Your task to perform on an android device: turn off location history Image 0: 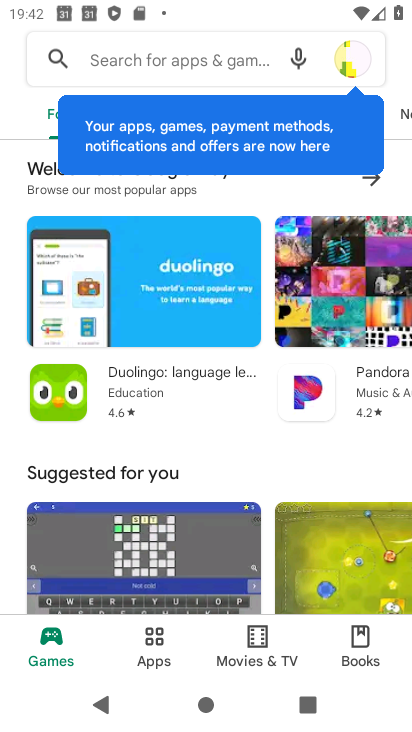
Step 0: press home button
Your task to perform on an android device: turn off location history Image 1: 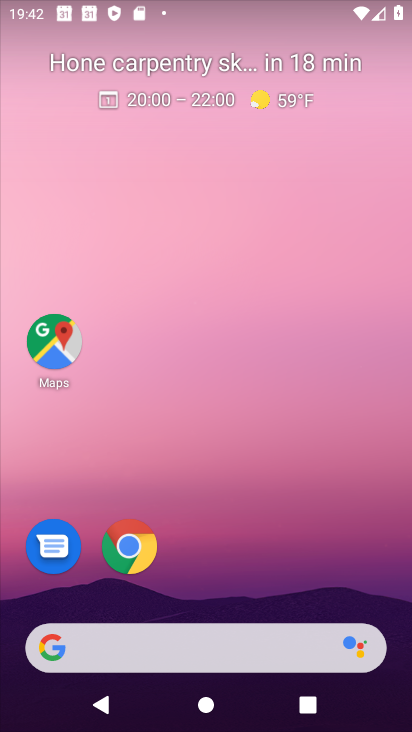
Step 1: drag from (336, 560) to (273, 278)
Your task to perform on an android device: turn off location history Image 2: 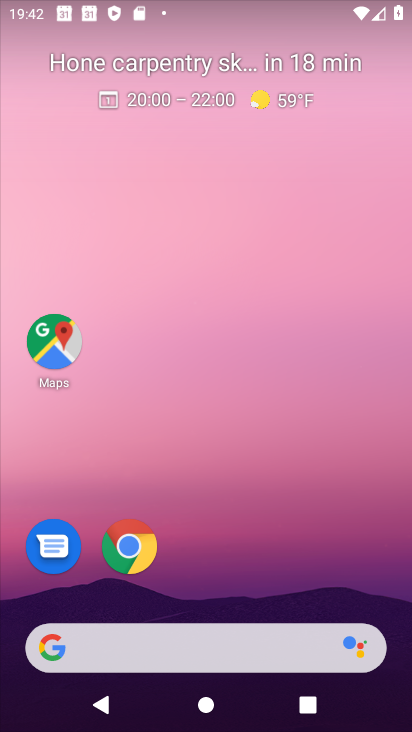
Step 2: drag from (320, 565) to (283, 200)
Your task to perform on an android device: turn off location history Image 3: 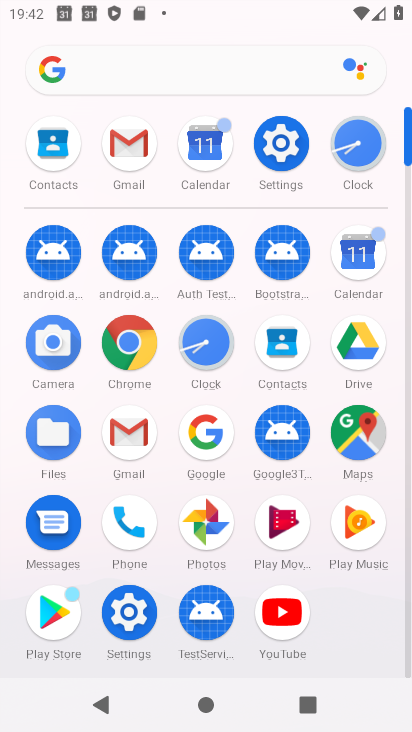
Step 3: click (129, 624)
Your task to perform on an android device: turn off location history Image 4: 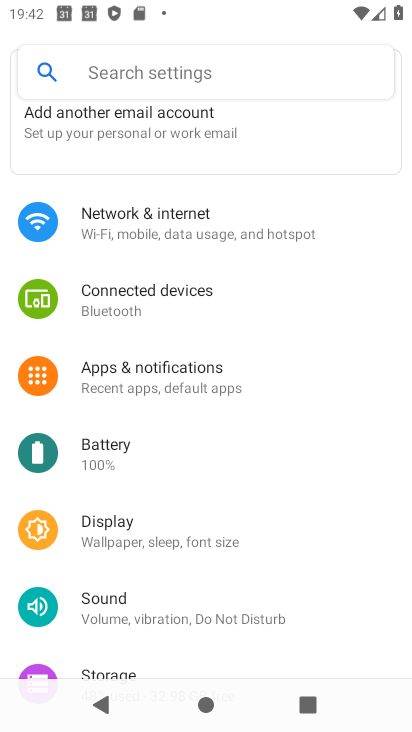
Step 4: drag from (207, 589) to (188, 317)
Your task to perform on an android device: turn off location history Image 5: 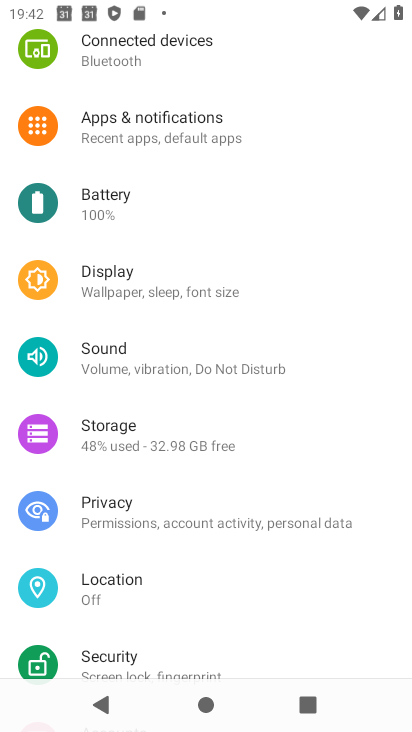
Step 5: click (99, 594)
Your task to perform on an android device: turn off location history Image 6: 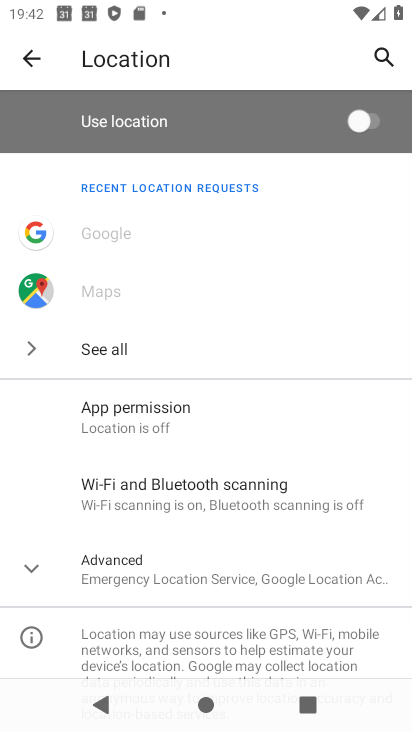
Step 6: click (219, 584)
Your task to perform on an android device: turn off location history Image 7: 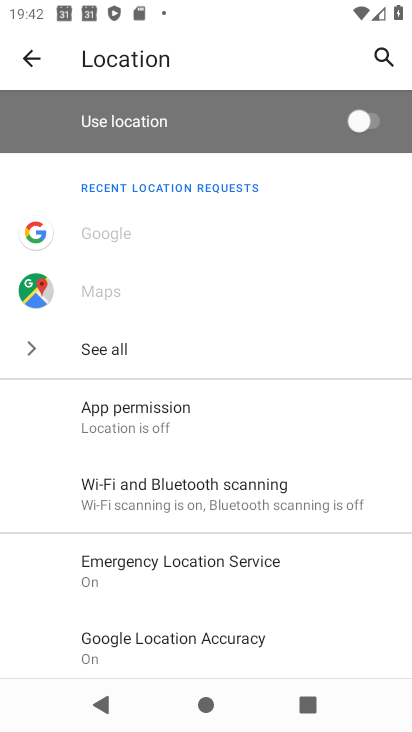
Step 7: drag from (239, 607) to (229, 449)
Your task to perform on an android device: turn off location history Image 8: 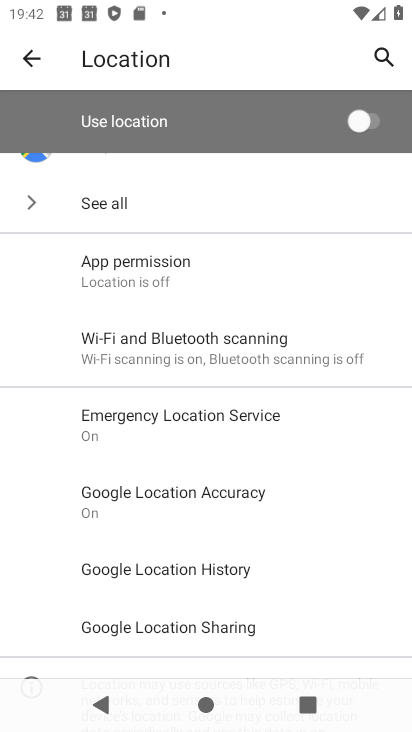
Step 8: click (242, 568)
Your task to perform on an android device: turn off location history Image 9: 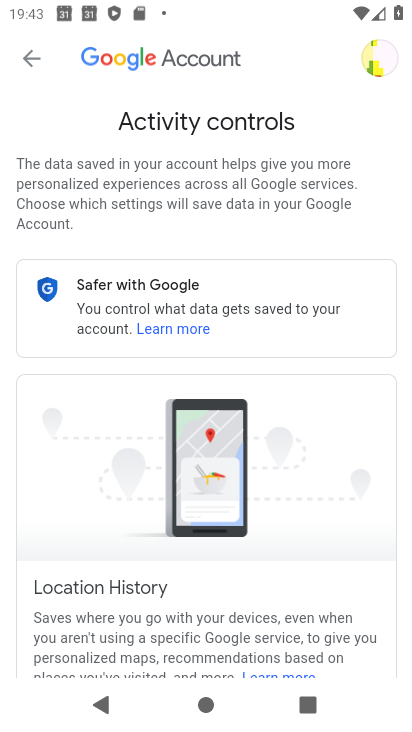
Step 9: drag from (299, 580) to (289, 335)
Your task to perform on an android device: turn off location history Image 10: 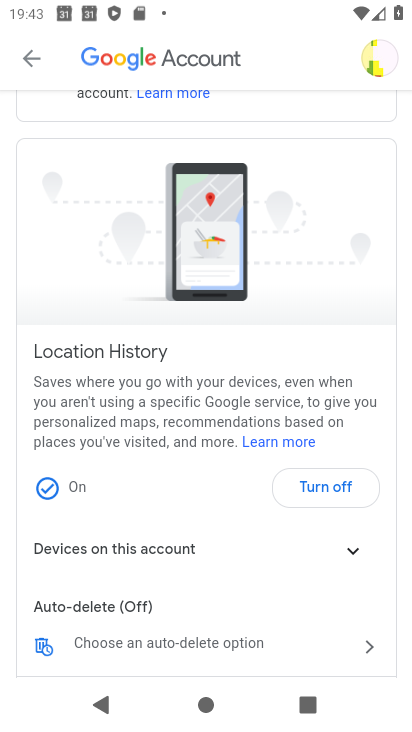
Step 10: click (316, 489)
Your task to perform on an android device: turn off location history Image 11: 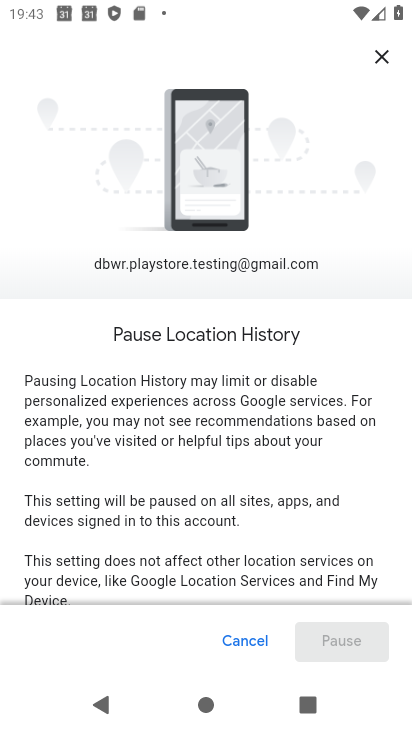
Step 11: drag from (344, 514) to (307, 207)
Your task to perform on an android device: turn off location history Image 12: 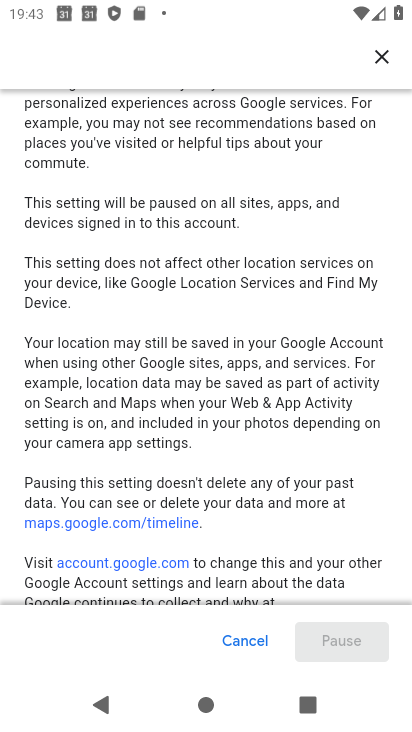
Step 12: drag from (313, 518) to (292, 119)
Your task to perform on an android device: turn off location history Image 13: 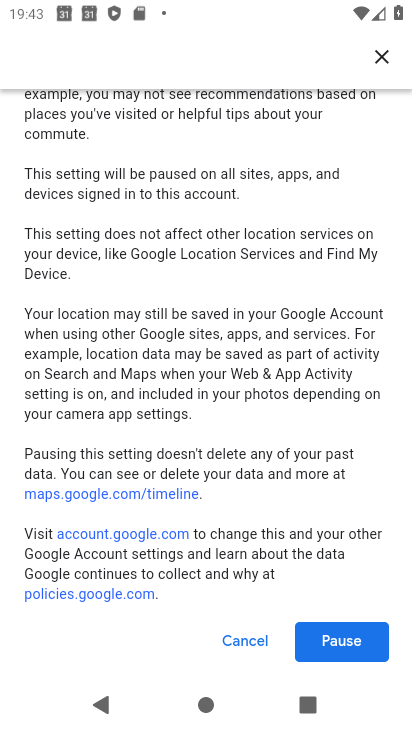
Step 13: click (311, 646)
Your task to perform on an android device: turn off location history Image 14: 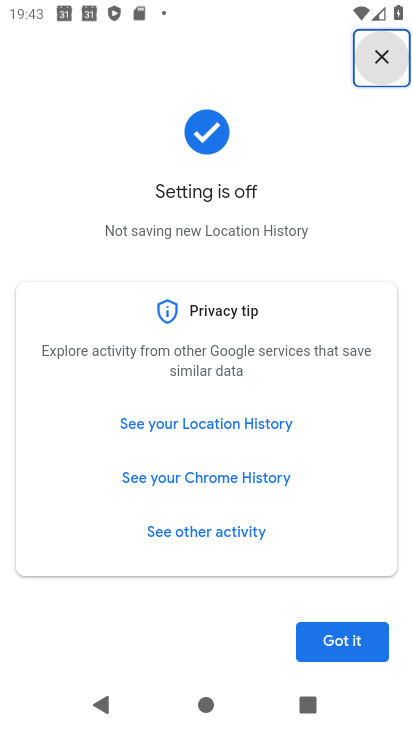
Step 14: click (329, 645)
Your task to perform on an android device: turn off location history Image 15: 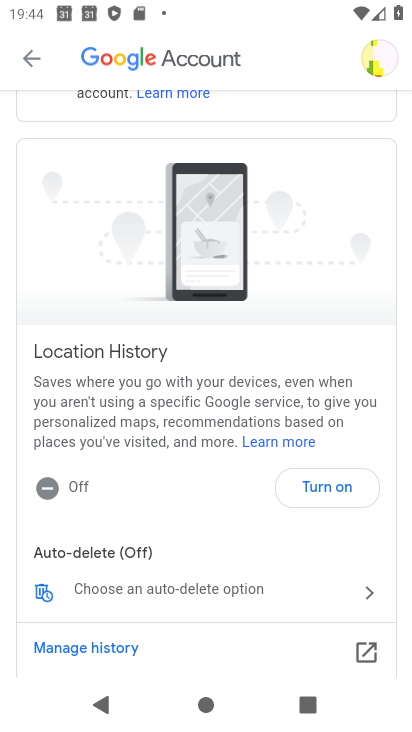
Step 15: task complete